Your task to perform on an android device: install app "Flipkart Online Shopping App" Image 0: 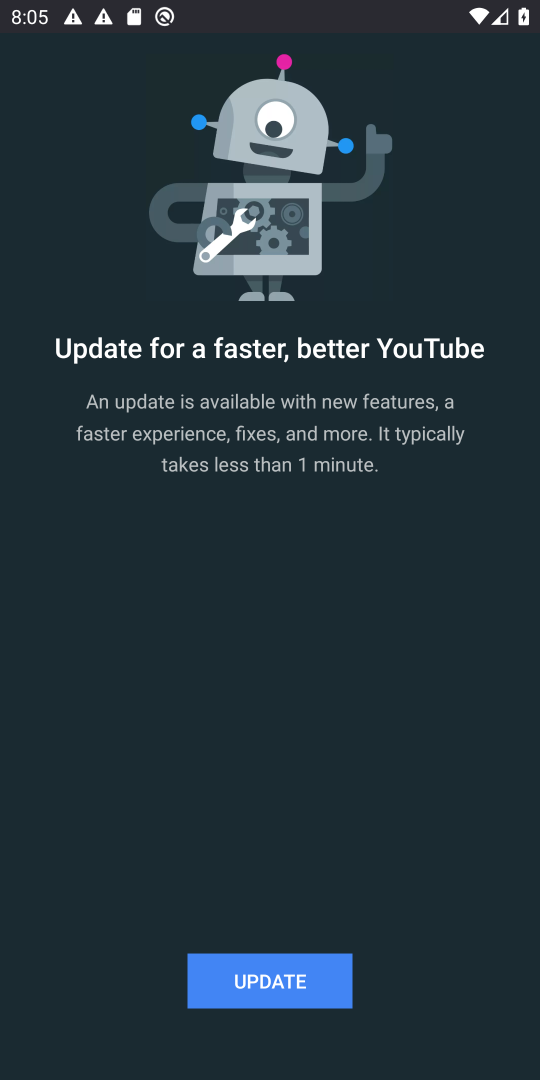
Step 0: press home button
Your task to perform on an android device: install app "Flipkart Online Shopping App" Image 1: 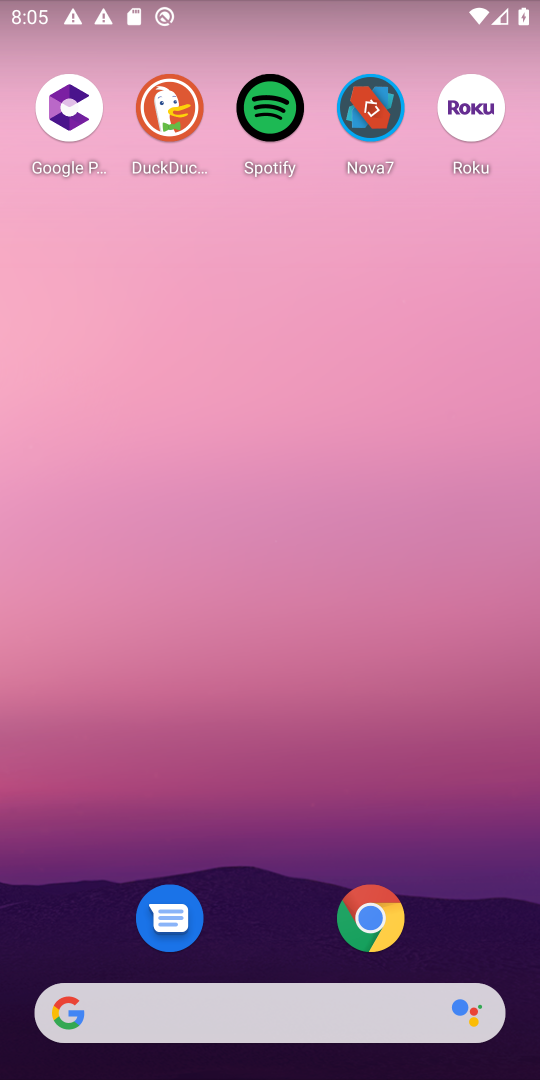
Step 1: press home button
Your task to perform on an android device: install app "Flipkart Online Shopping App" Image 2: 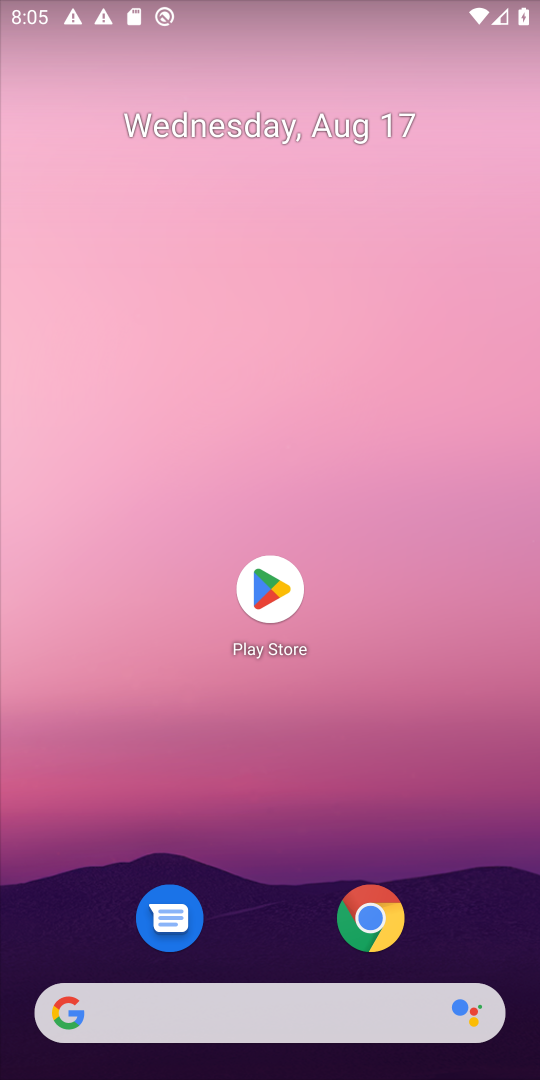
Step 2: click (272, 585)
Your task to perform on an android device: install app "Flipkart Online Shopping App" Image 3: 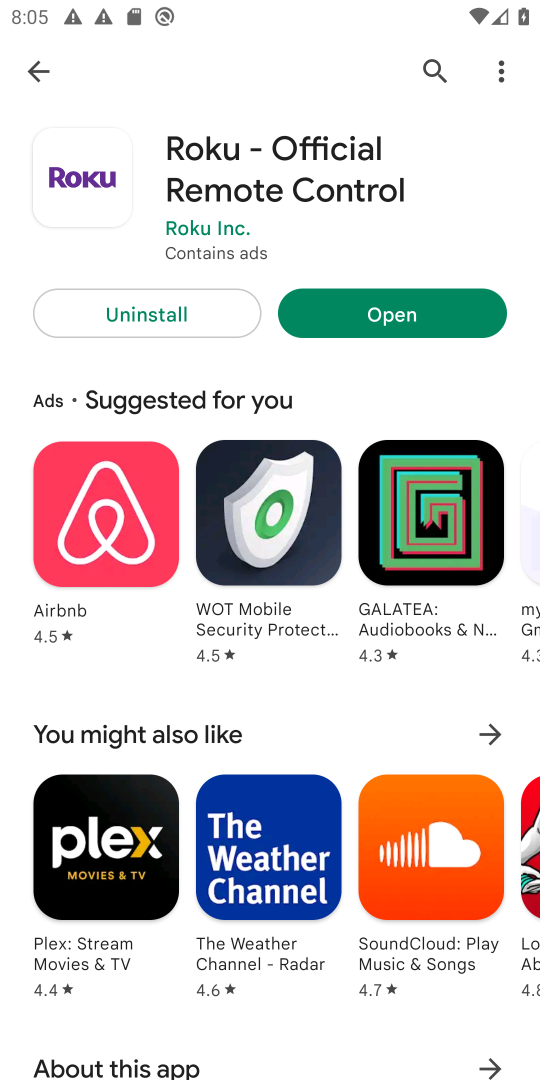
Step 3: click (431, 64)
Your task to perform on an android device: install app "Flipkart Online Shopping App" Image 4: 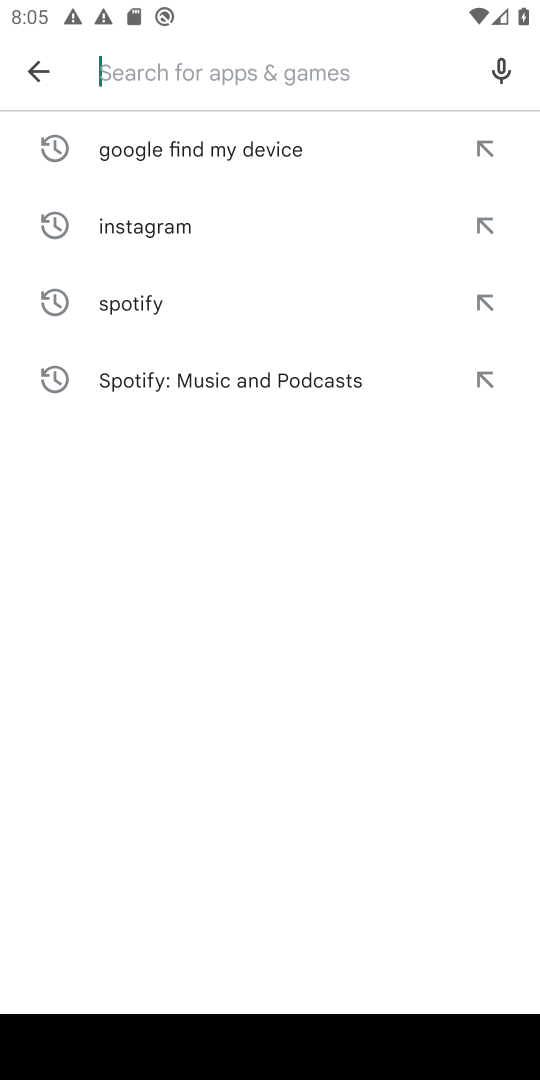
Step 4: type "Flipkart Online Shopping App"
Your task to perform on an android device: install app "Flipkart Online Shopping App" Image 5: 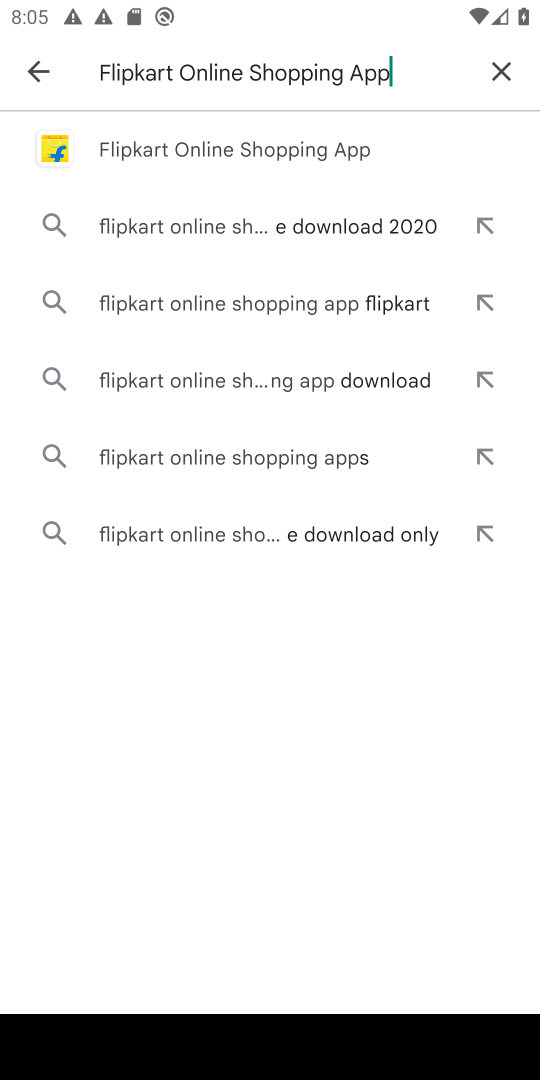
Step 5: click (246, 138)
Your task to perform on an android device: install app "Flipkart Online Shopping App" Image 6: 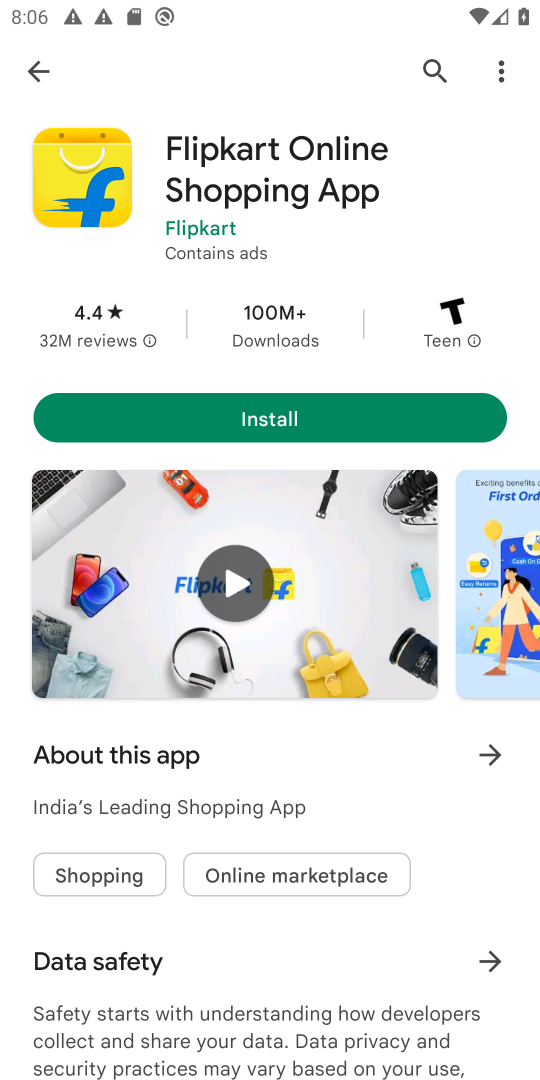
Step 6: click (279, 416)
Your task to perform on an android device: install app "Flipkart Online Shopping App" Image 7: 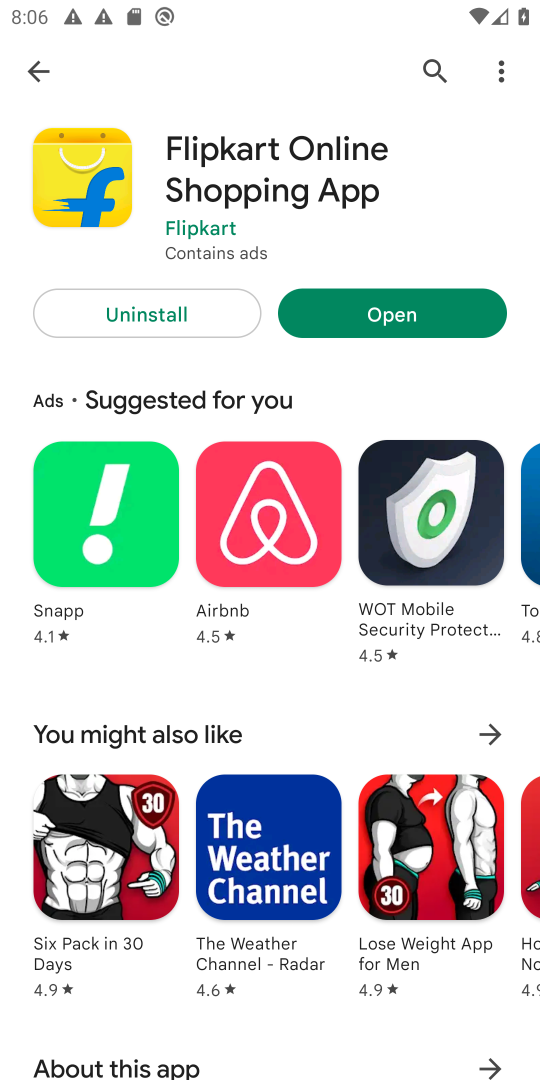
Step 7: task complete